Your task to perform on an android device: add a contact in the contacts app Image 0: 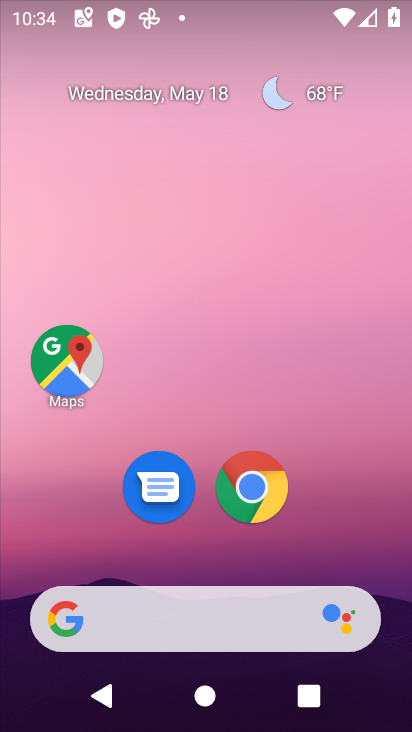
Step 0: press home button
Your task to perform on an android device: add a contact in the contacts app Image 1: 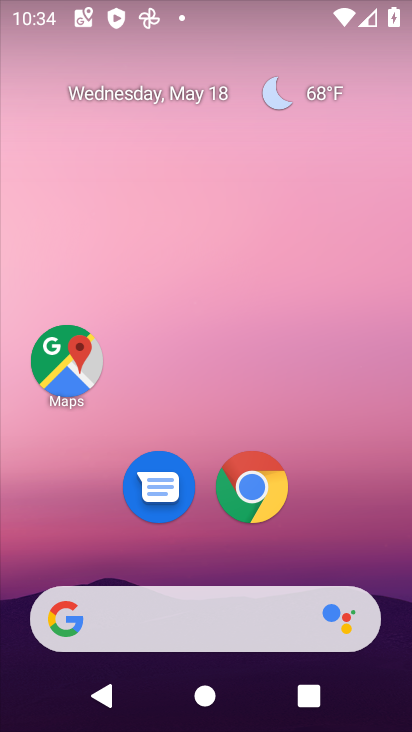
Step 1: drag from (357, 567) to (355, 178)
Your task to perform on an android device: add a contact in the contacts app Image 2: 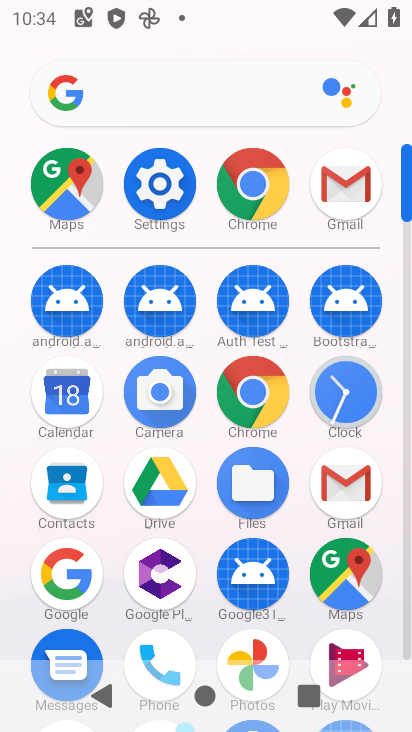
Step 2: click (69, 491)
Your task to perform on an android device: add a contact in the contacts app Image 3: 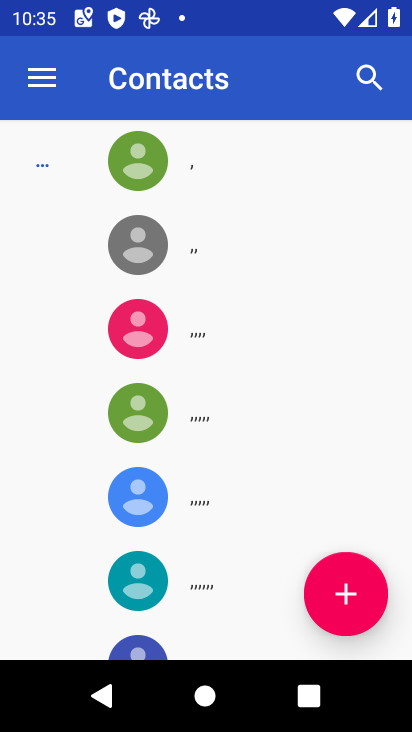
Step 3: click (356, 615)
Your task to perform on an android device: add a contact in the contacts app Image 4: 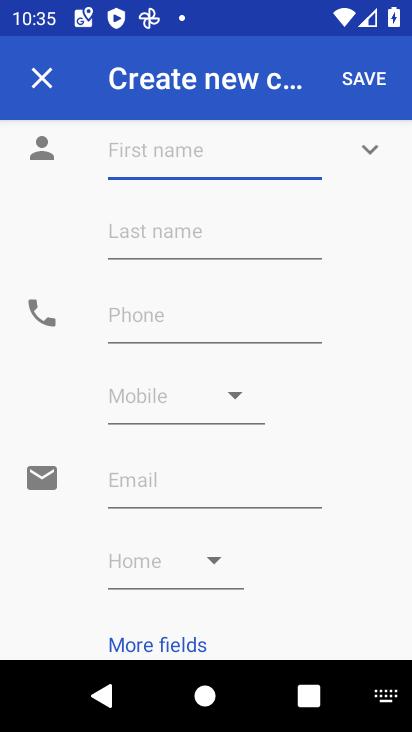
Step 4: click (173, 160)
Your task to perform on an android device: add a contact in the contacts app Image 5: 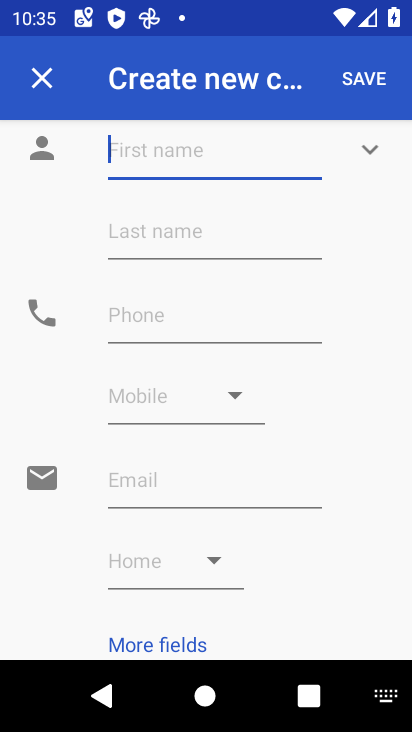
Step 5: type "wendr"
Your task to perform on an android device: add a contact in the contacts app Image 6: 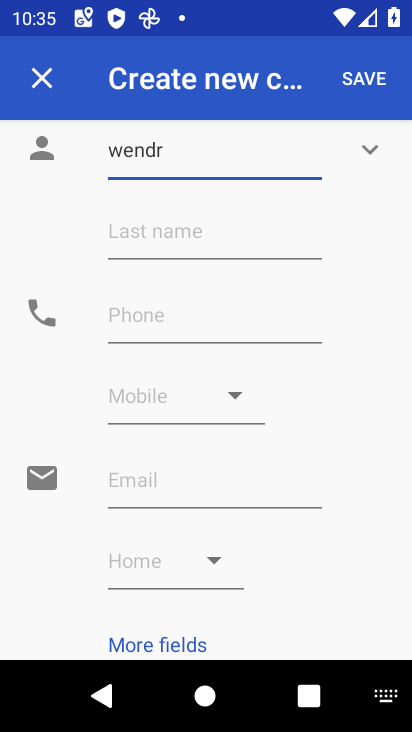
Step 6: click (195, 318)
Your task to perform on an android device: add a contact in the contacts app Image 7: 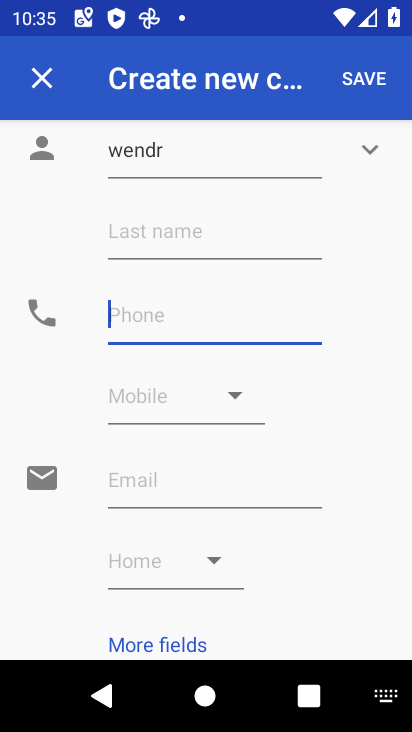
Step 7: type "8975654546"
Your task to perform on an android device: add a contact in the contacts app Image 8: 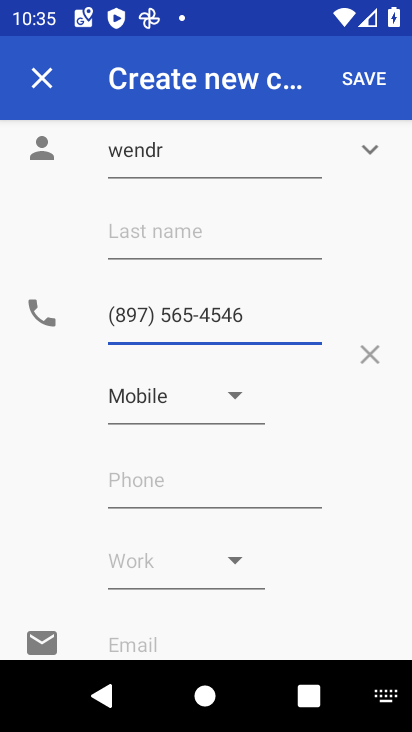
Step 8: click (351, 81)
Your task to perform on an android device: add a contact in the contacts app Image 9: 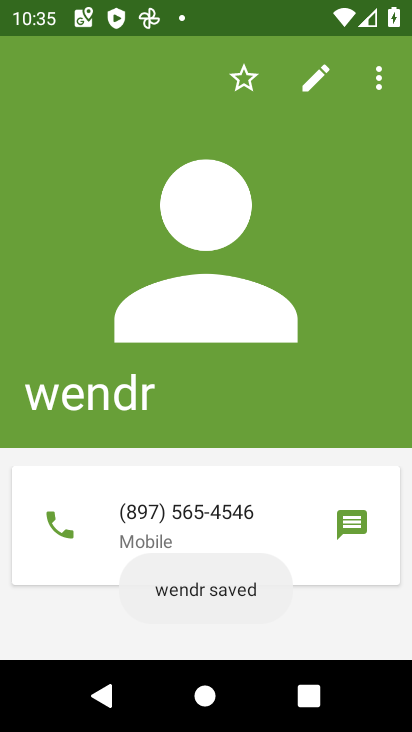
Step 9: task complete